Your task to perform on an android device: visit the assistant section in the google photos Image 0: 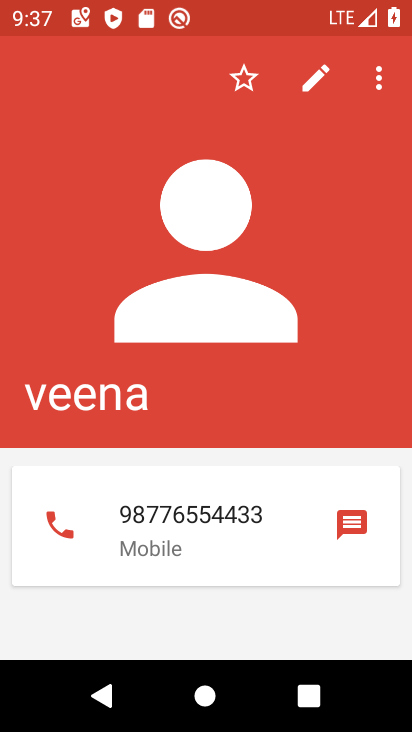
Step 0: press home button
Your task to perform on an android device: visit the assistant section in the google photos Image 1: 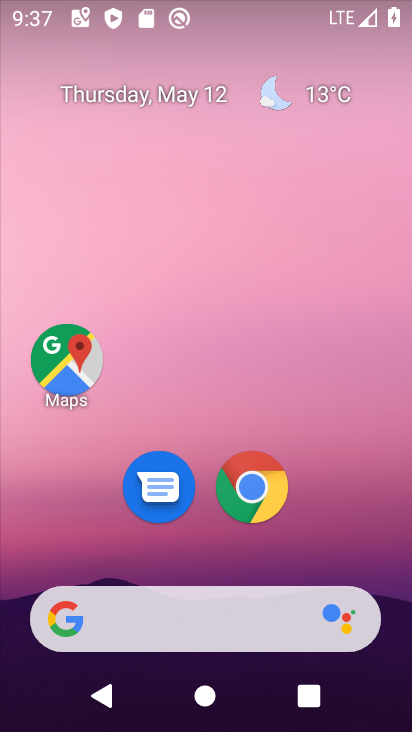
Step 1: drag from (370, 413) to (342, 15)
Your task to perform on an android device: visit the assistant section in the google photos Image 2: 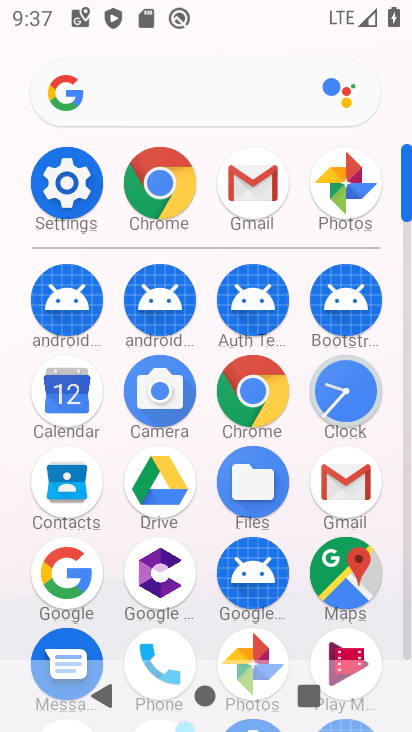
Step 2: click (362, 183)
Your task to perform on an android device: visit the assistant section in the google photos Image 3: 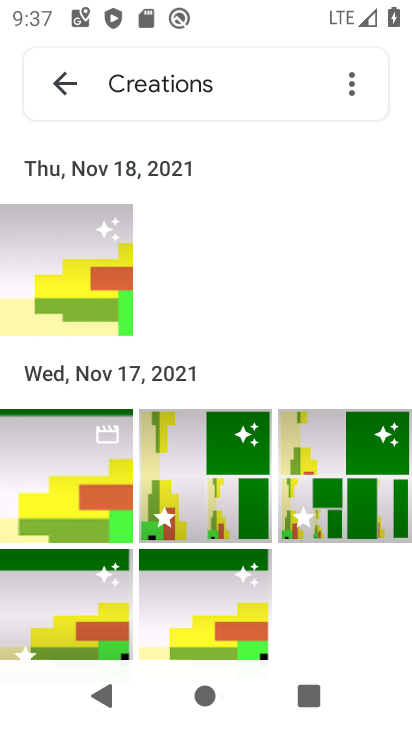
Step 3: click (68, 84)
Your task to perform on an android device: visit the assistant section in the google photos Image 4: 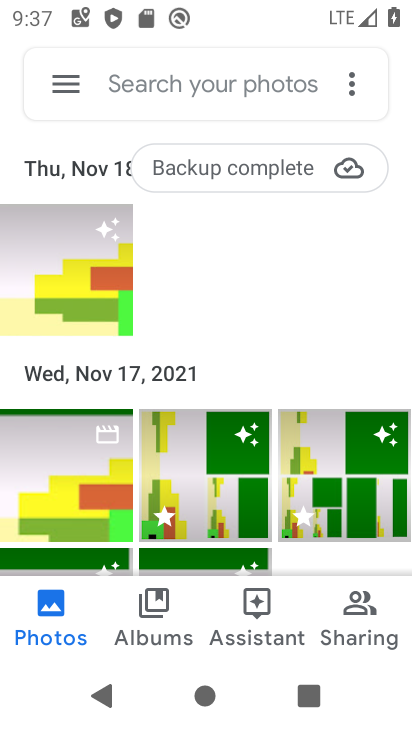
Step 4: click (254, 610)
Your task to perform on an android device: visit the assistant section in the google photos Image 5: 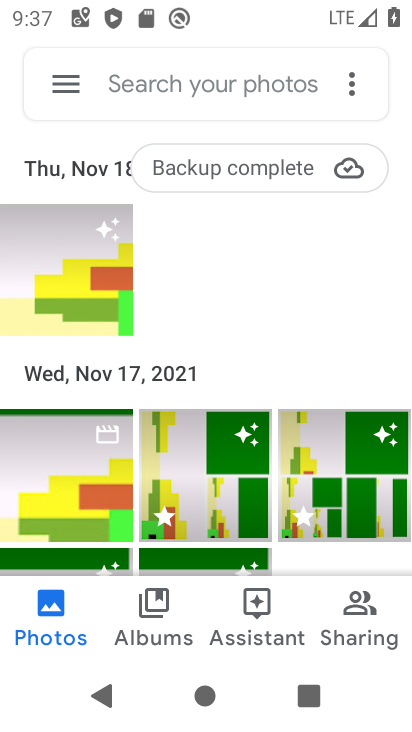
Step 5: click (254, 611)
Your task to perform on an android device: visit the assistant section in the google photos Image 6: 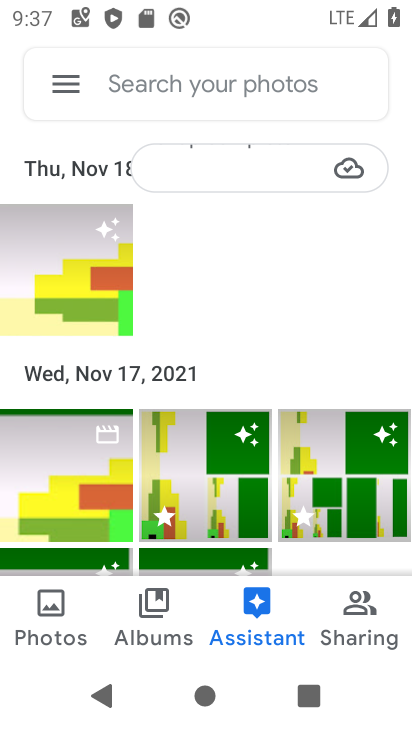
Step 6: click (255, 623)
Your task to perform on an android device: visit the assistant section in the google photos Image 7: 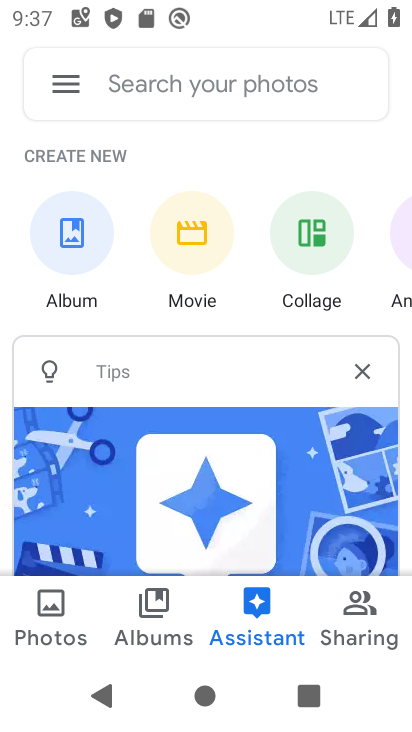
Step 7: task complete